Your task to perform on an android device: turn off location history Image 0: 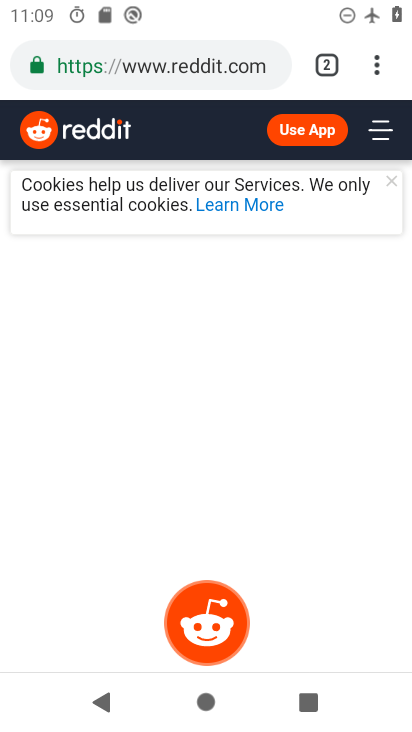
Step 0: press home button
Your task to perform on an android device: turn off location history Image 1: 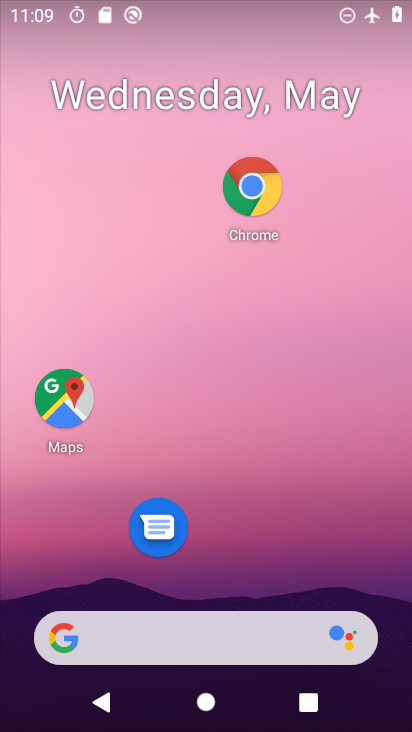
Step 1: click (283, 601)
Your task to perform on an android device: turn off location history Image 2: 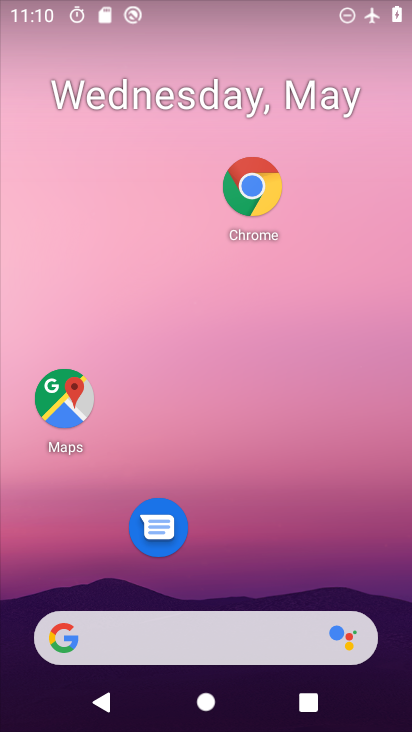
Step 2: drag from (320, 477) to (411, 42)
Your task to perform on an android device: turn off location history Image 3: 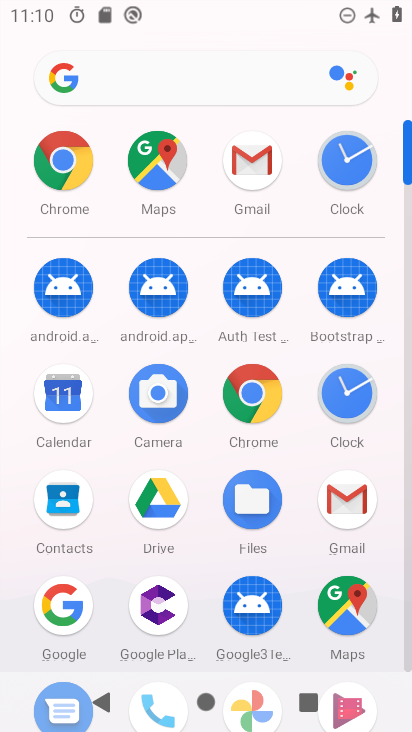
Step 3: drag from (164, 513) to (272, 207)
Your task to perform on an android device: turn off location history Image 4: 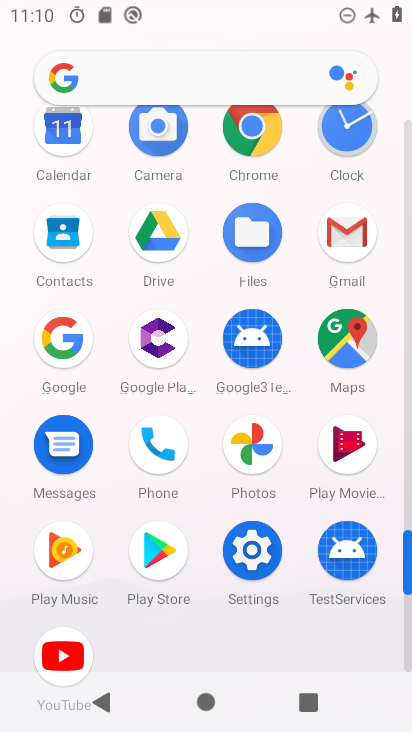
Step 4: click (261, 574)
Your task to perform on an android device: turn off location history Image 5: 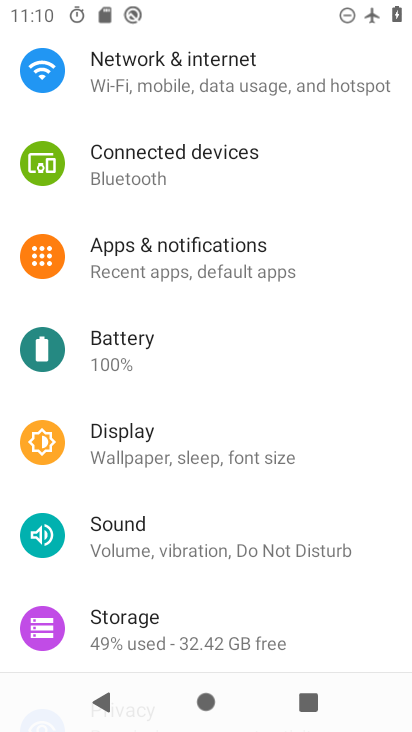
Step 5: drag from (188, 545) to (275, 241)
Your task to perform on an android device: turn off location history Image 6: 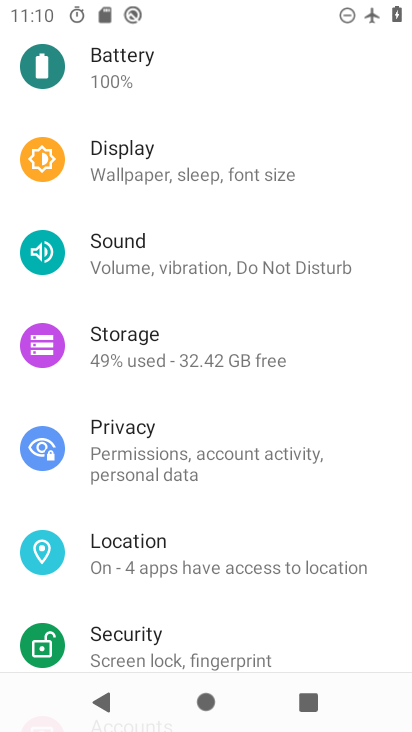
Step 6: click (147, 558)
Your task to perform on an android device: turn off location history Image 7: 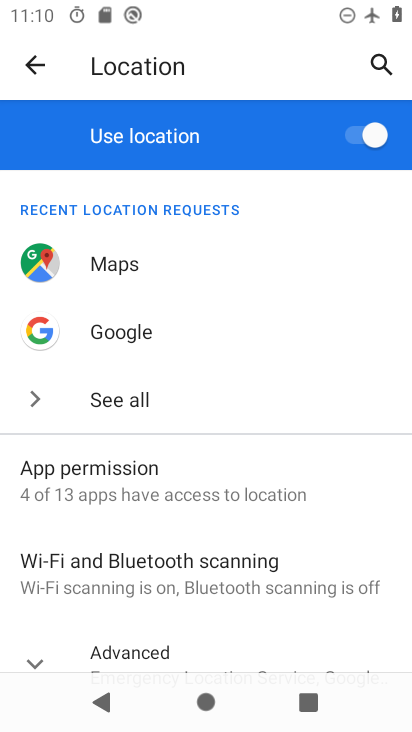
Step 7: drag from (172, 527) to (170, 347)
Your task to perform on an android device: turn off location history Image 8: 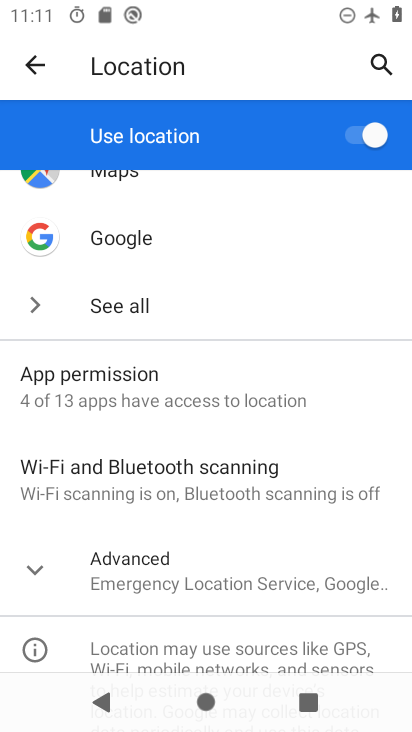
Step 8: click (242, 578)
Your task to perform on an android device: turn off location history Image 9: 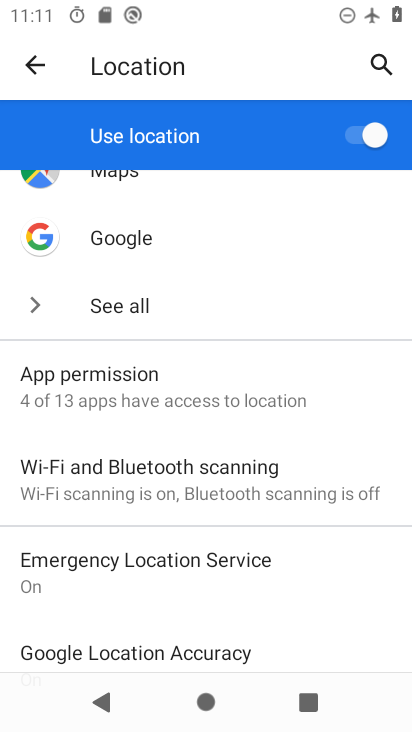
Step 9: drag from (235, 568) to (239, 228)
Your task to perform on an android device: turn off location history Image 10: 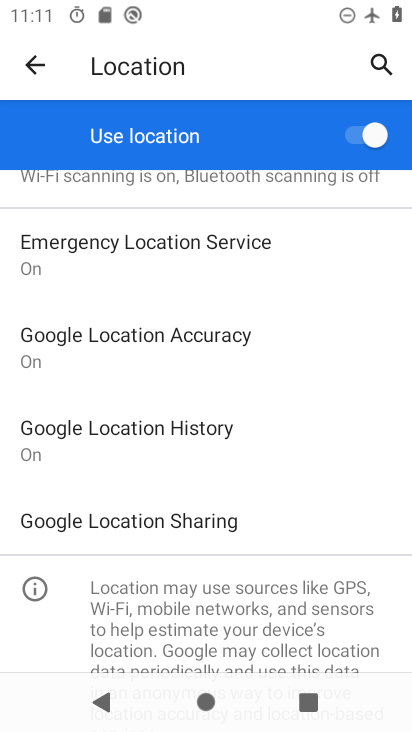
Step 10: click (181, 453)
Your task to perform on an android device: turn off location history Image 11: 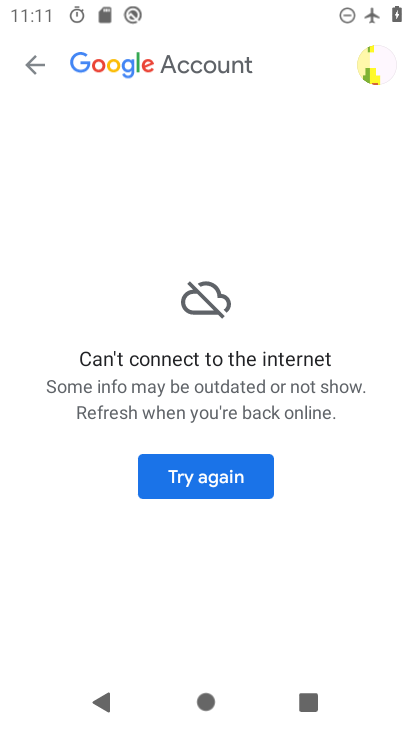
Step 11: task complete